Your task to perform on an android device: open the mobile data screen to see how much data has been used Image 0: 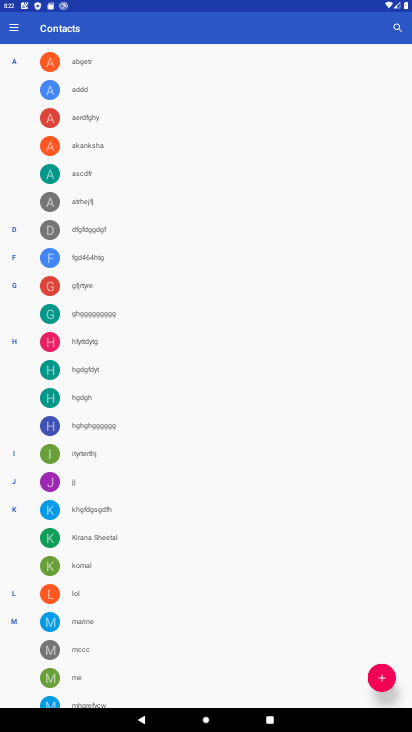
Step 0: drag from (199, 5) to (224, 408)
Your task to perform on an android device: open the mobile data screen to see how much data has been used Image 1: 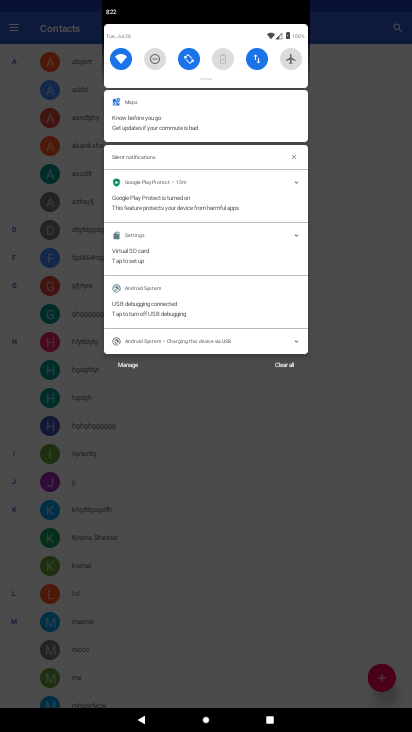
Step 1: click (251, 62)
Your task to perform on an android device: open the mobile data screen to see how much data has been used Image 2: 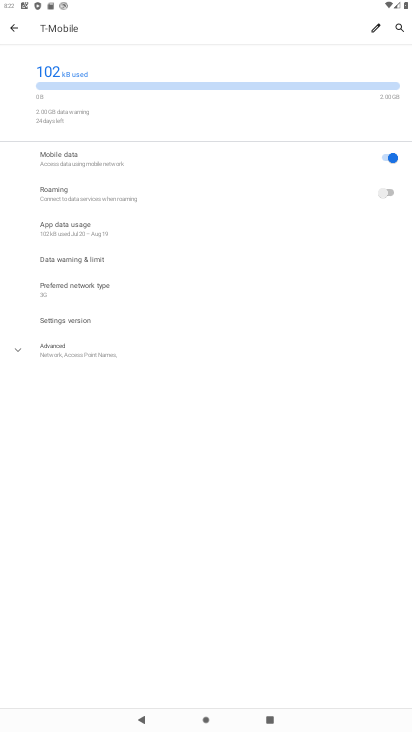
Step 2: task complete